Your task to perform on an android device: Open settings Image 0: 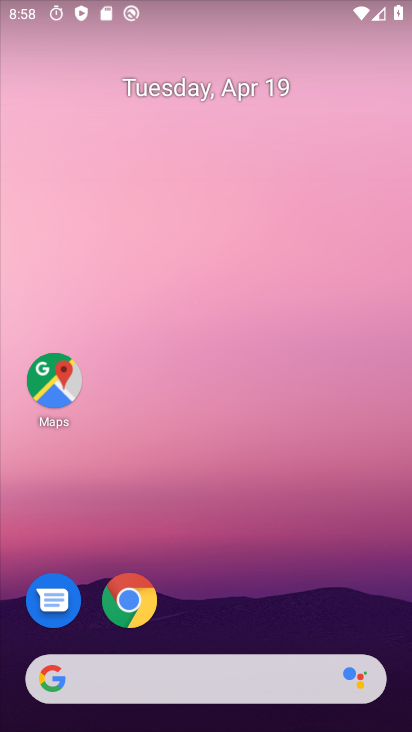
Step 0: drag from (204, 493) to (237, 8)
Your task to perform on an android device: Open settings Image 1: 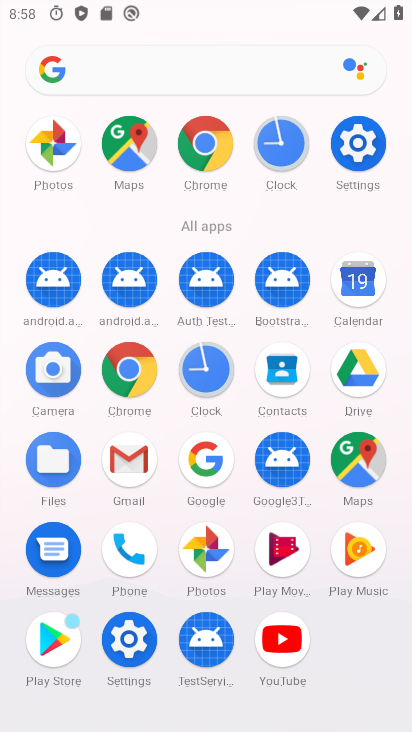
Step 1: click (363, 158)
Your task to perform on an android device: Open settings Image 2: 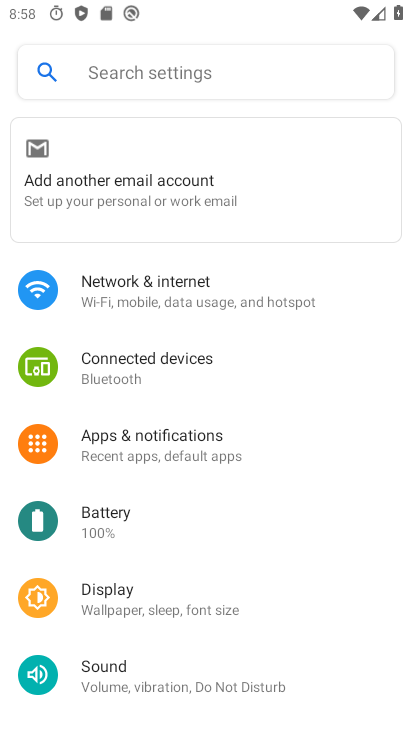
Step 2: task complete